Your task to perform on an android device: choose inbox layout in the gmail app Image 0: 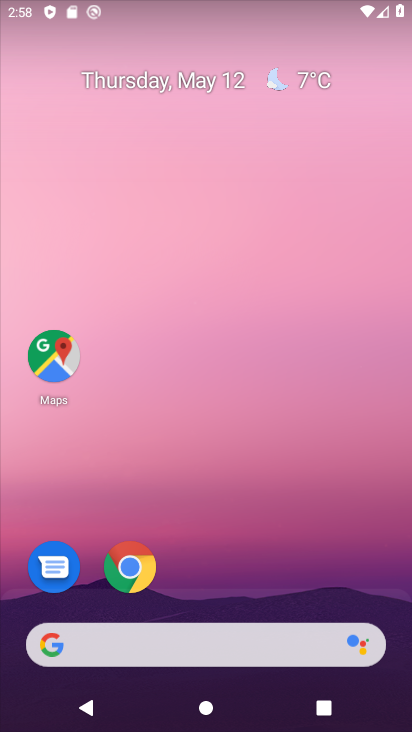
Step 0: drag from (220, 557) to (196, 117)
Your task to perform on an android device: choose inbox layout in the gmail app Image 1: 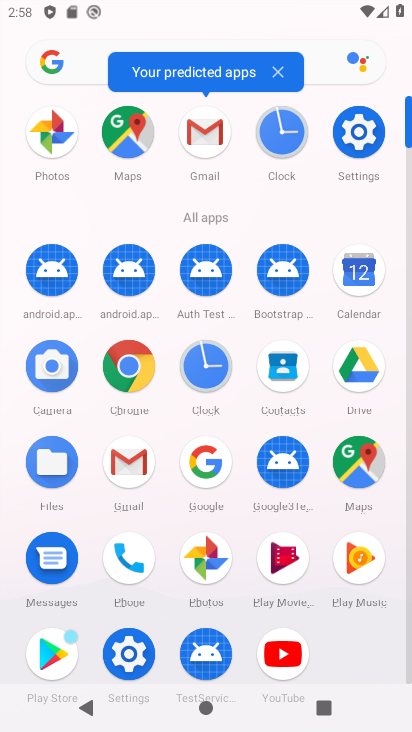
Step 1: click (121, 463)
Your task to perform on an android device: choose inbox layout in the gmail app Image 2: 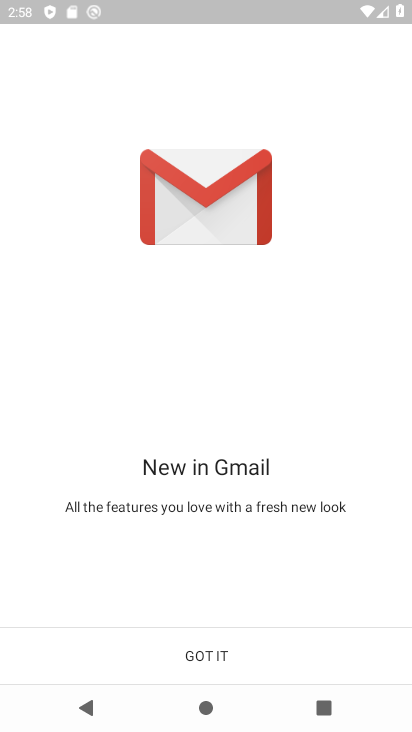
Step 2: click (262, 659)
Your task to perform on an android device: choose inbox layout in the gmail app Image 3: 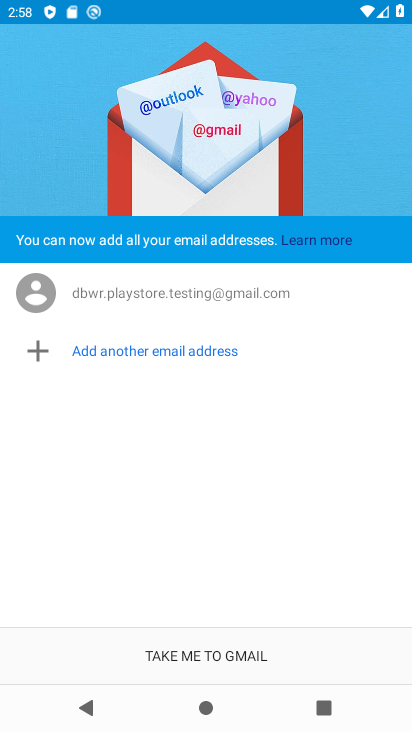
Step 3: click (262, 635)
Your task to perform on an android device: choose inbox layout in the gmail app Image 4: 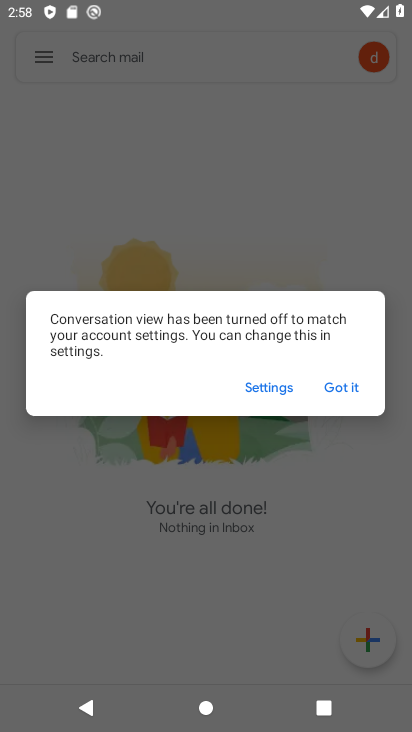
Step 4: click (325, 389)
Your task to perform on an android device: choose inbox layout in the gmail app Image 5: 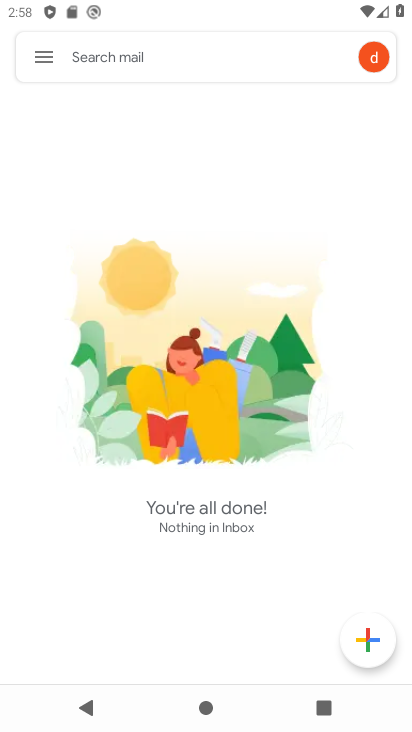
Step 5: click (50, 53)
Your task to perform on an android device: choose inbox layout in the gmail app Image 6: 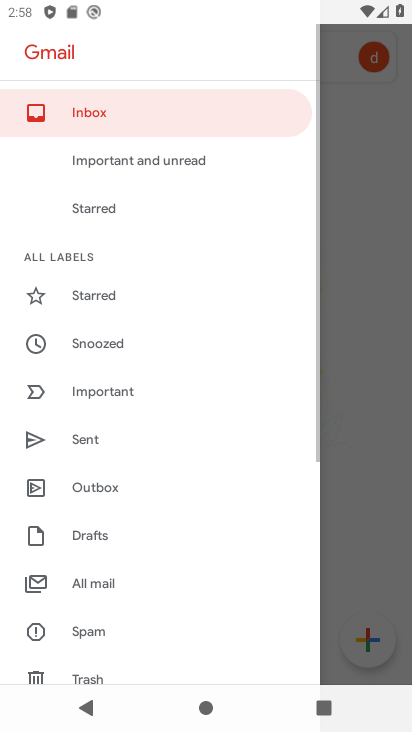
Step 6: drag from (88, 615) to (101, 120)
Your task to perform on an android device: choose inbox layout in the gmail app Image 7: 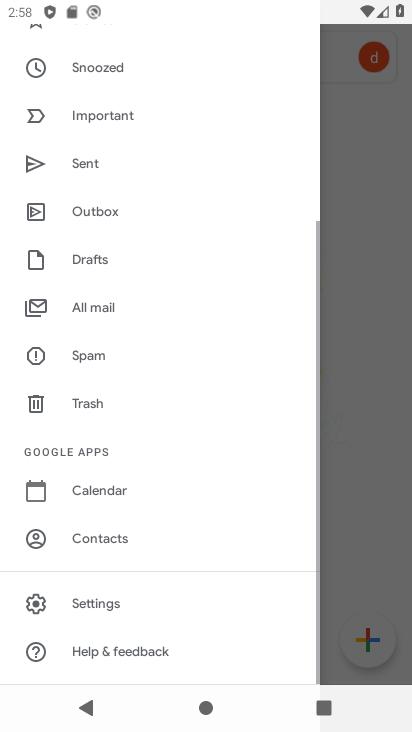
Step 7: click (120, 598)
Your task to perform on an android device: choose inbox layout in the gmail app Image 8: 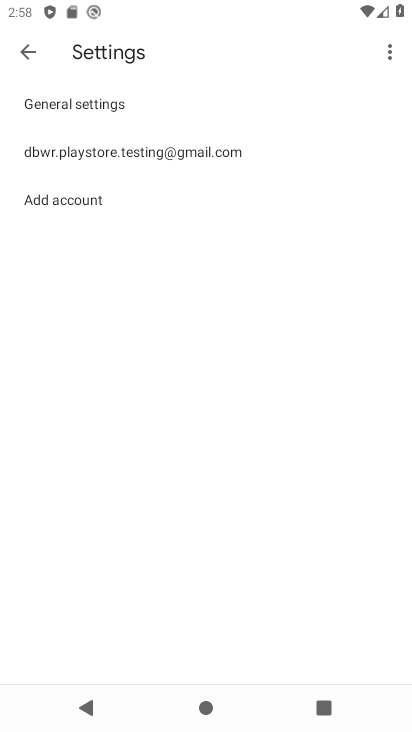
Step 8: click (231, 155)
Your task to perform on an android device: choose inbox layout in the gmail app Image 9: 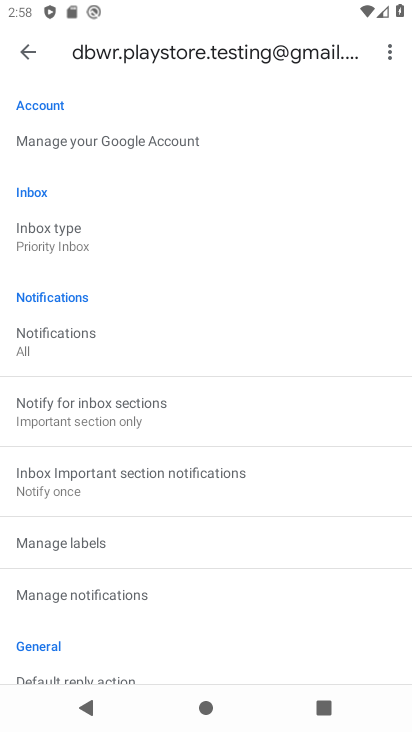
Step 9: click (42, 231)
Your task to perform on an android device: choose inbox layout in the gmail app Image 10: 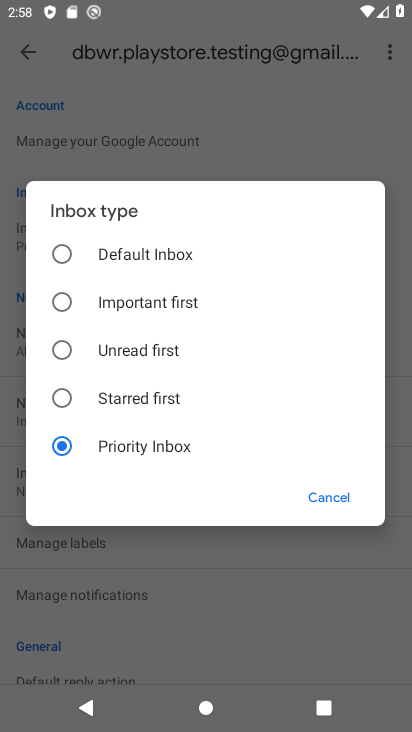
Step 10: click (137, 261)
Your task to perform on an android device: choose inbox layout in the gmail app Image 11: 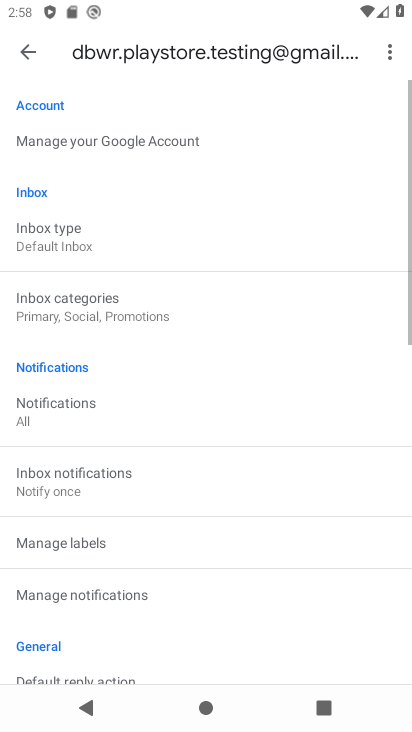
Step 11: task complete